Your task to perform on an android device: Go to accessibility settings Image 0: 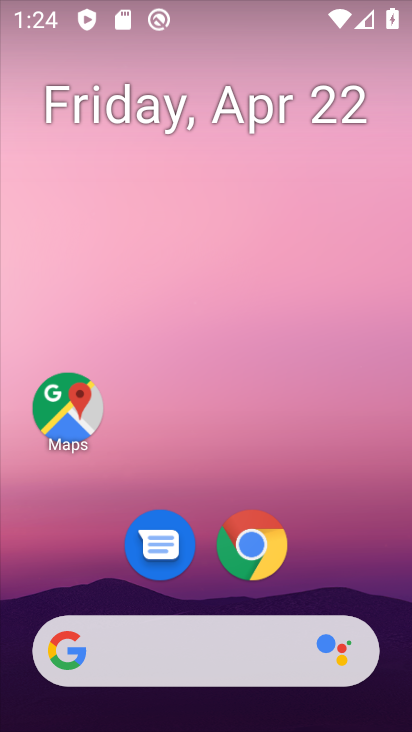
Step 0: drag from (294, 468) to (277, 42)
Your task to perform on an android device: Go to accessibility settings Image 1: 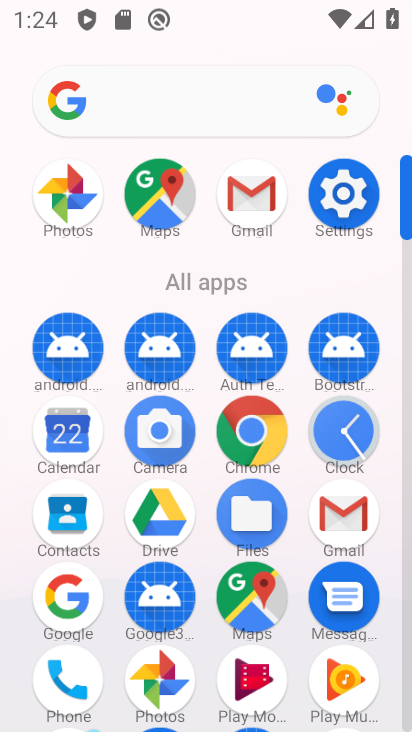
Step 1: click (345, 192)
Your task to perform on an android device: Go to accessibility settings Image 2: 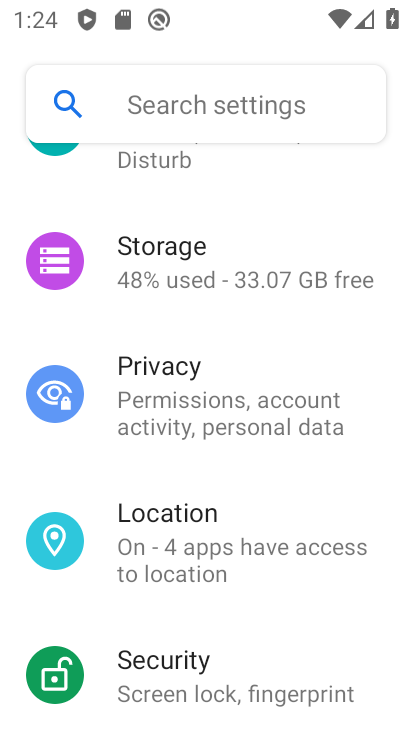
Step 2: drag from (245, 360) to (337, 219)
Your task to perform on an android device: Go to accessibility settings Image 3: 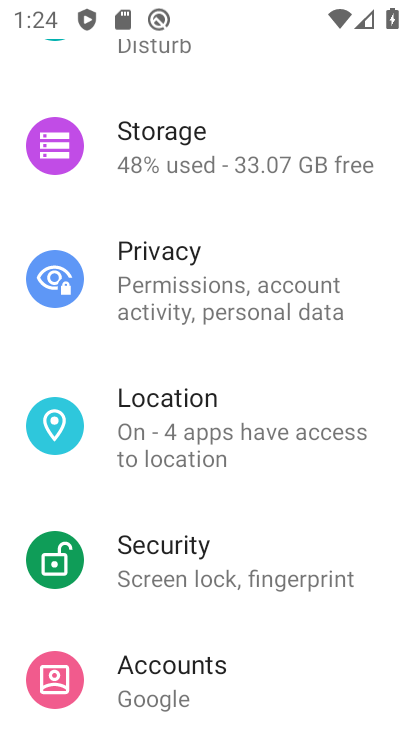
Step 3: drag from (268, 468) to (348, 339)
Your task to perform on an android device: Go to accessibility settings Image 4: 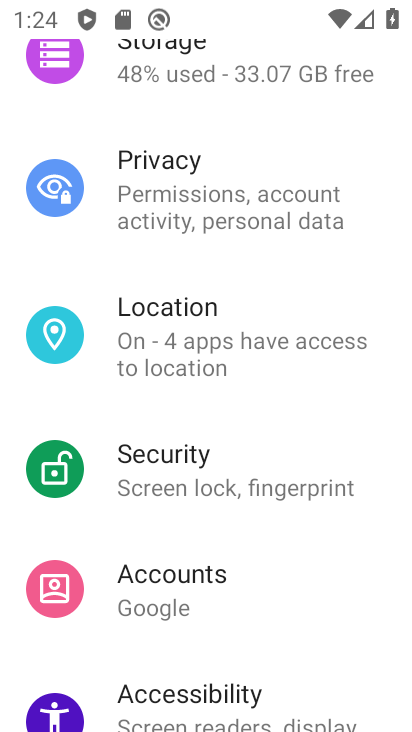
Step 4: drag from (242, 529) to (356, 351)
Your task to perform on an android device: Go to accessibility settings Image 5: 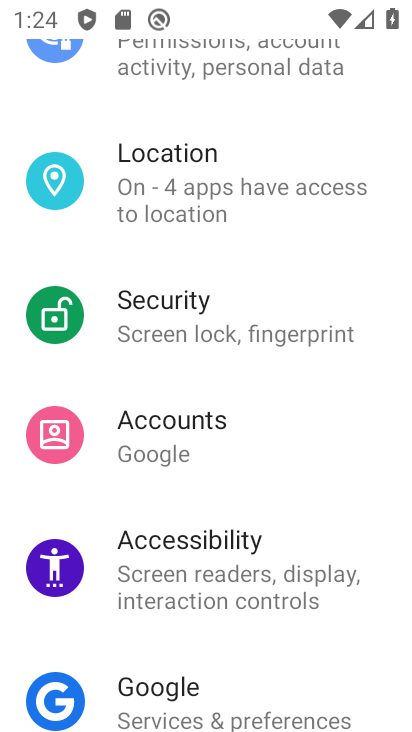
Step 5: drag from (285, 424) to (327, 361)
Your task to perform on an android device: Go to accessibility settings Image 6: 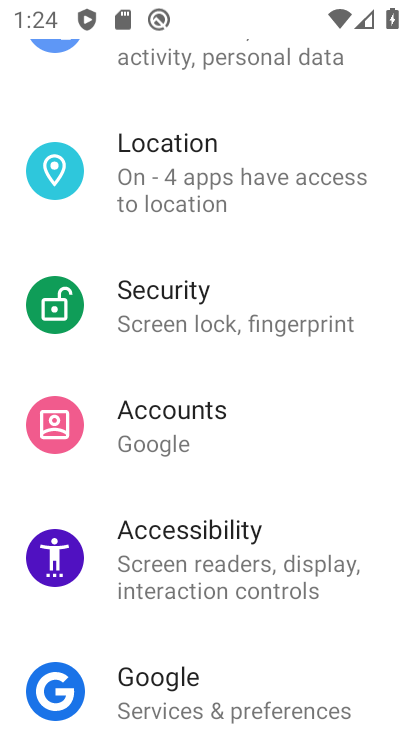
Step 6: click (229, 530)
Your task to perform on an android device: Go to accessibility settings Image 7: 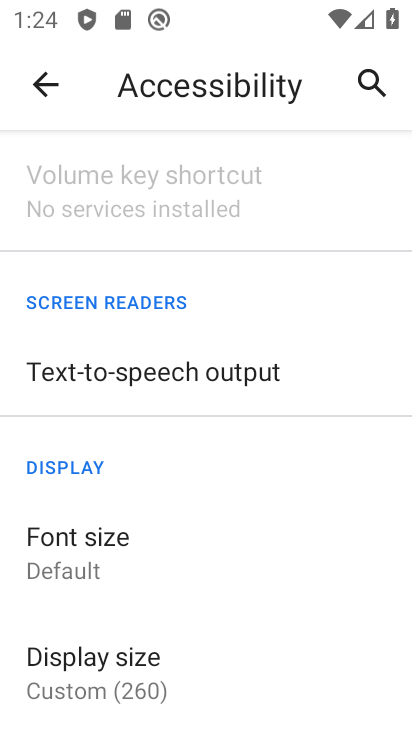
Step 7: task complete